Your task to perform on an android device: Turn off the flashlight Image 0: 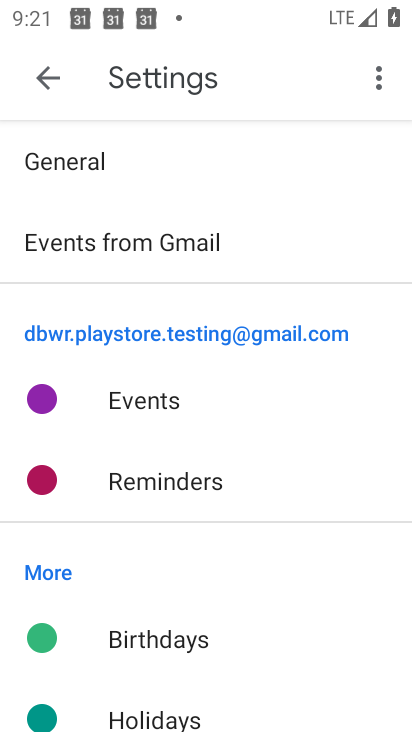
Step 0: press back button
Your task to perform on an android device: Turn off the flashlight Image 1: 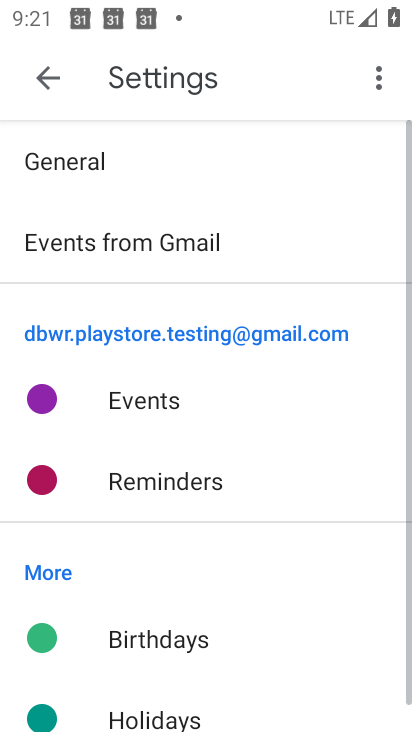
Step 1: press back button
Your task to perform on an android device: Turn off the flashlight Image 2: 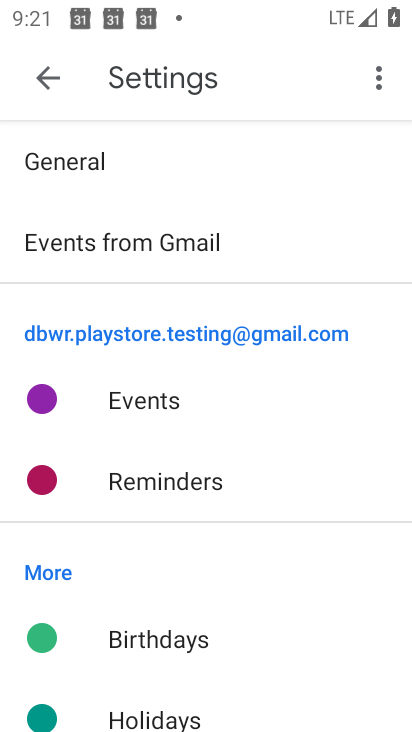
Step 2: press back button
Your task to perform on an android device: Turn off the flashlight Image 3: 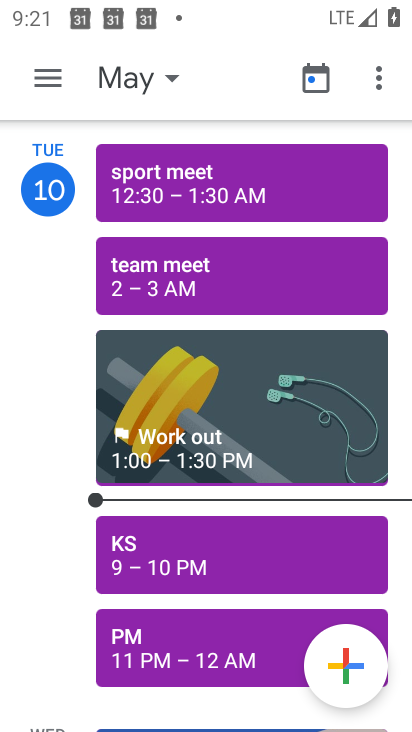
Step 3: press back button
Your task to perform on an android device: Turn off the flashlight Image 4: 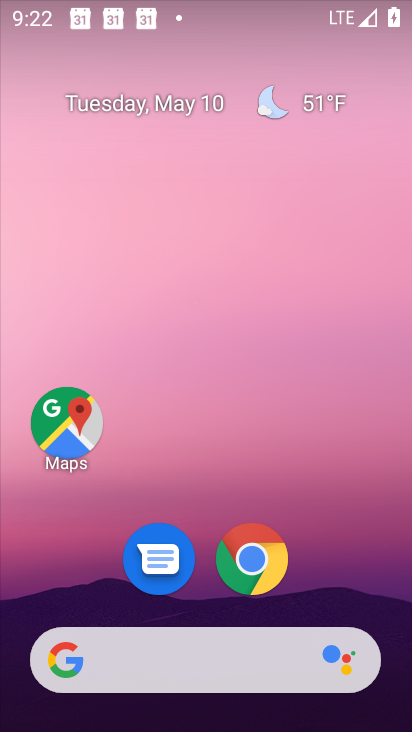
Step 4: drag from (349, 553) to (310, 266)
Your task to perform on an android device: Turn off the flashlight Image 5: 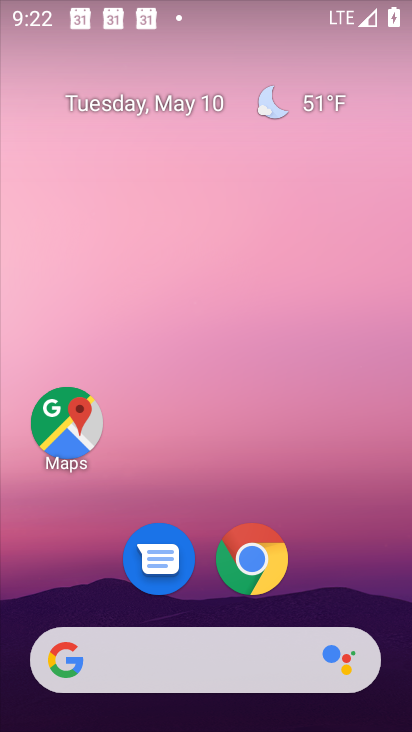
Step 5: drag from (341, 502) to (287, 109)
Your task to perform on an android device: Turn off the flashlight Image 6: 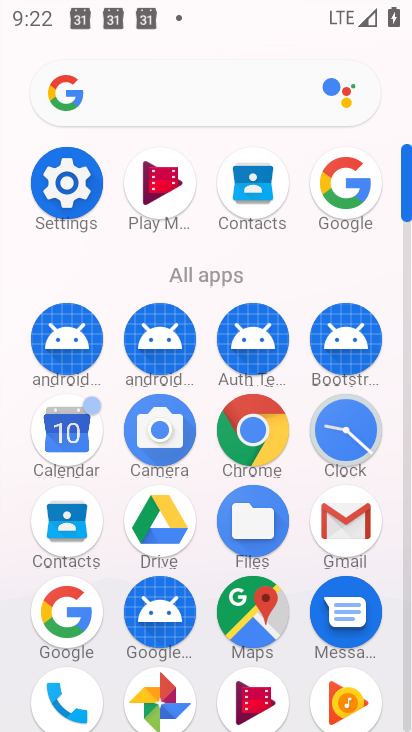
Step 6: click (72, 184)
Your task to perform on an android device: Turn off the flashlight Image 7: 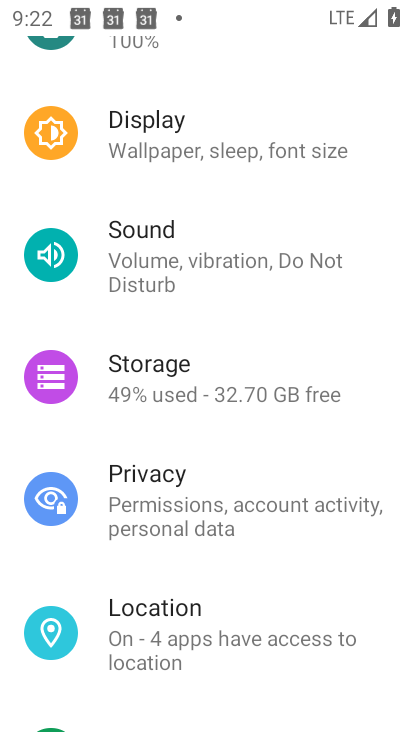
Step 7: click (253, 152)
Your task to perform on an android device: Turn off the flashlight Image 8: 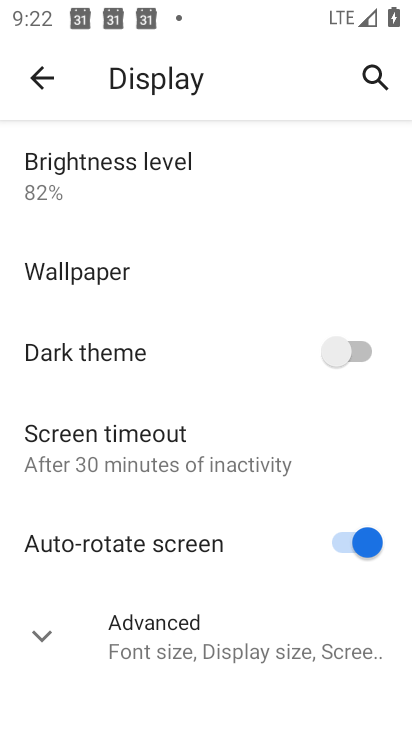
Step 8: click (175, 626)
Your task to perform on an android device: Turn off the flashlight Image 9: 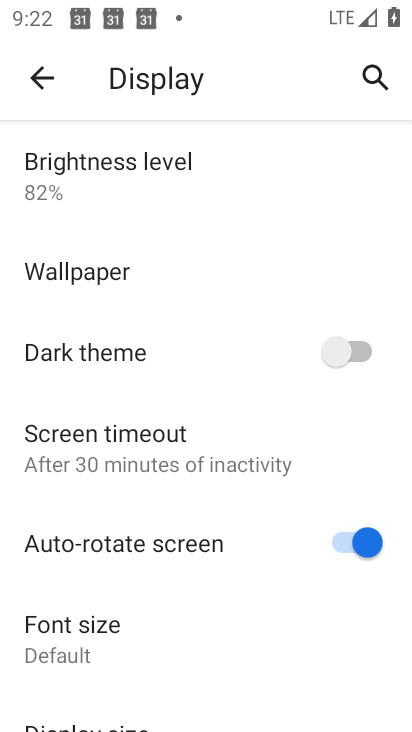
Step 9: drag from (174, 639) to (172, 406)
Your task to perform on an android device: Turn off the flashlight Image 10: 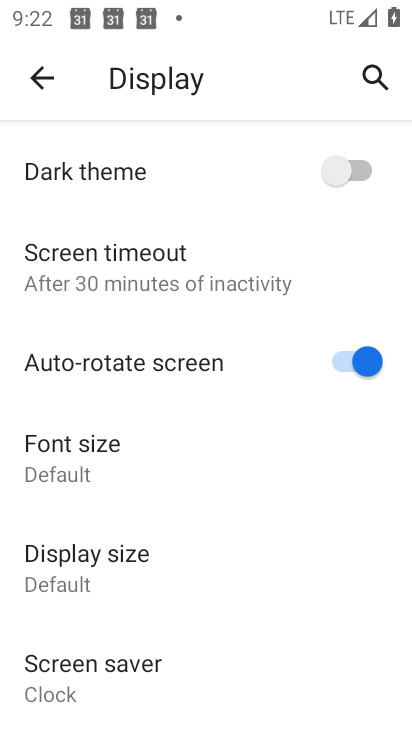
Step 10: drag from (146, 616) to (175, 429)
Your task to perform on an android device: Turn off the flashlight Image 11: 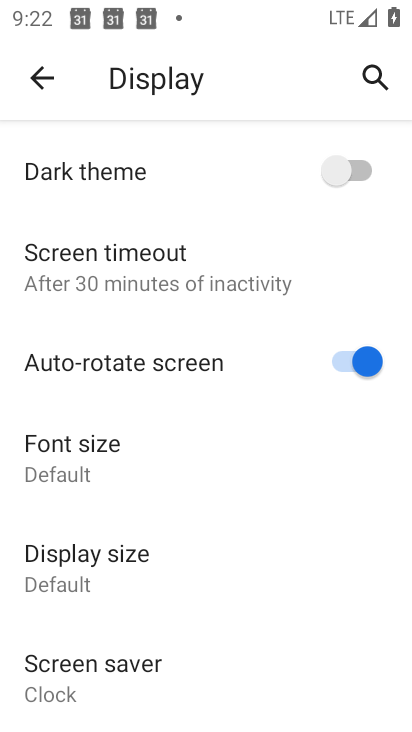
Step 11: click (176, 290)
Your task to perform on an android device: Turn off the flashlight Image 12: 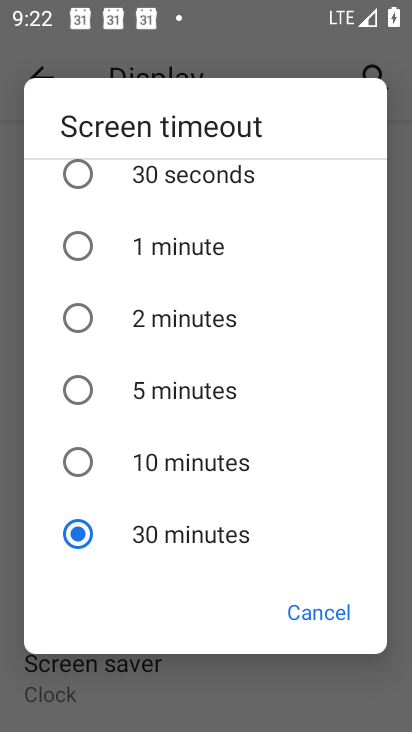
Step 12: click (346, 620)
Your task to perform on an android device: Turn off the flashlight Image 13: 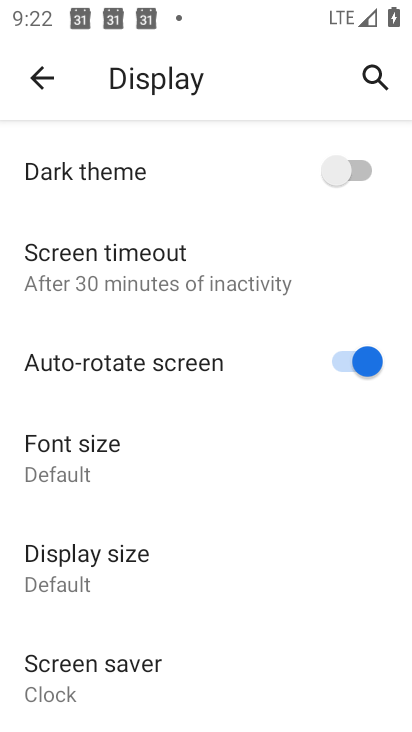
Step 13: task complete